Your task to perform on an android device: turn off javascript in the chrome app Image 0: 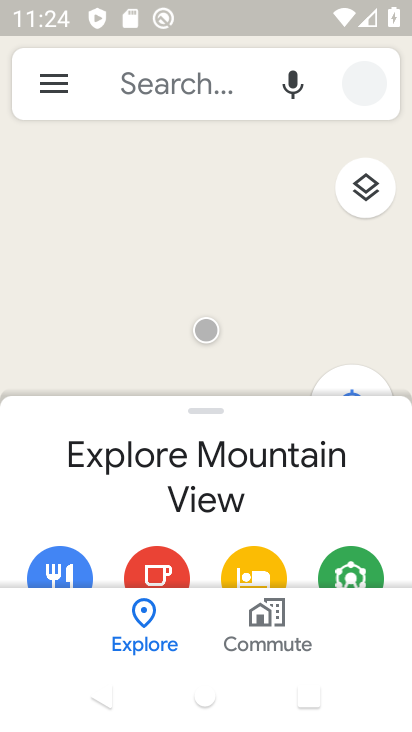
Step 0: press home button
Your task to perform on an android device: turn off javascript in the chrome app Image 1: 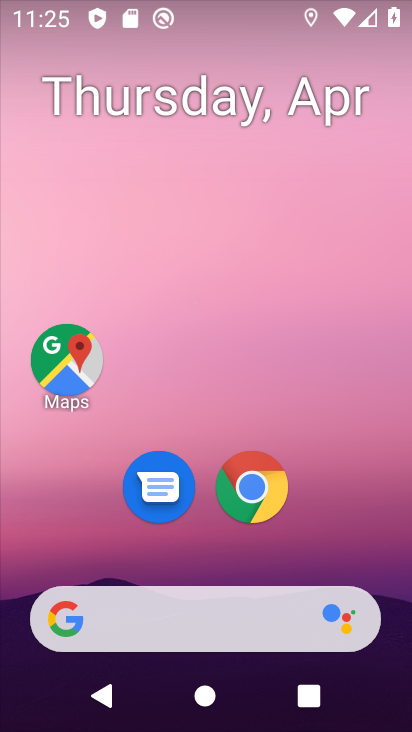
Step 1: drag from (326, 563) to (315, 179)
Your task to perform on an android device: turn off javascript in the chrome app Image 2: 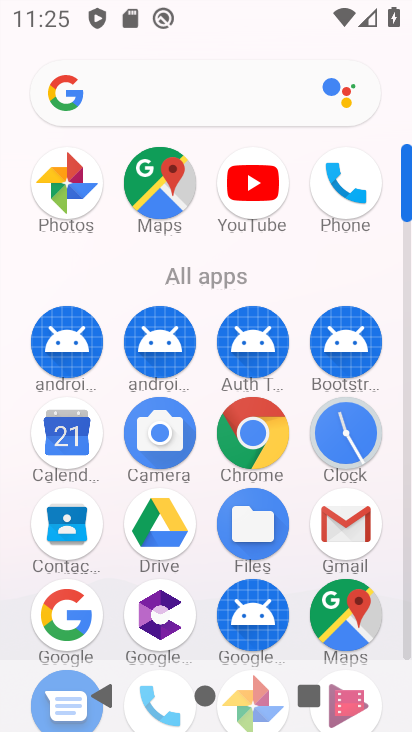
Step 2: drag from (201, 583) to (240, 234)
Your task to perform on an android device: turn off javascript in the chrome app Image 3: 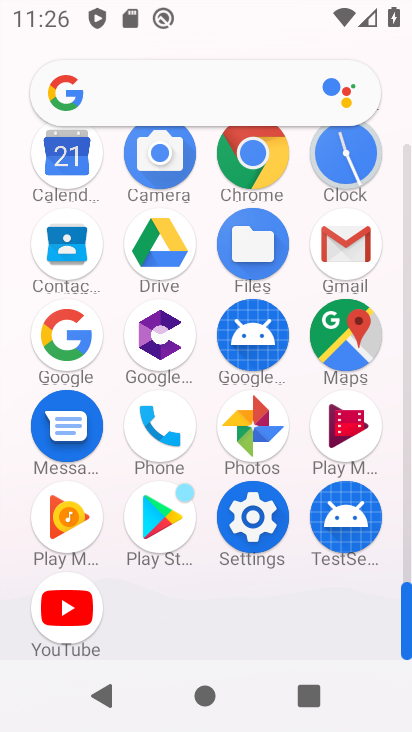
Step 3: click (257, 153)
Your task to perform on an android device: turn off javascript in the chrome app Image 4: 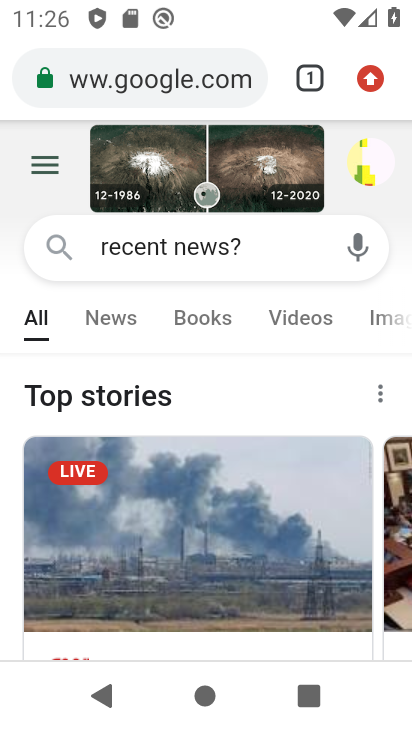
Step 4: click (376, 87)
Your task to perform on an android device: turn off javascript in the chrome app Image 5: 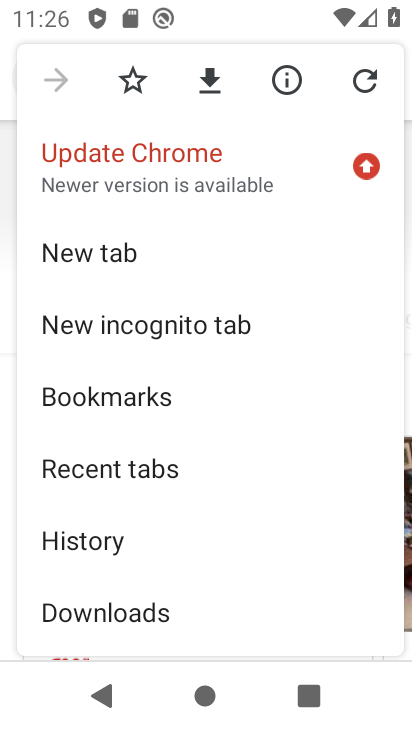
Step 5: drag from (209, 570) to (262, 161)
Your task to perform on an android device: turn off javascript in the chrome app Image 6: 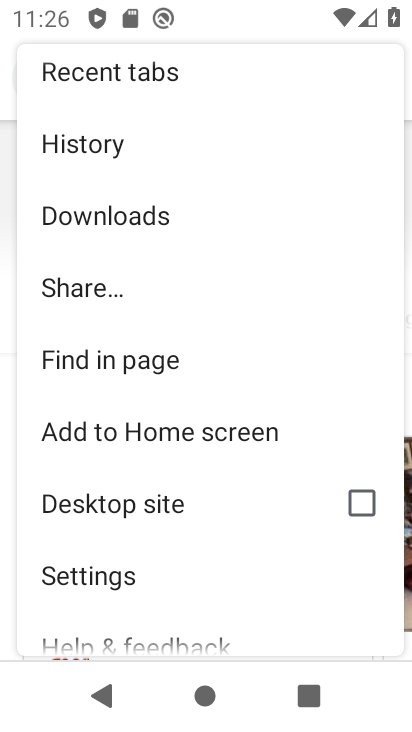
Step 6: click (145, 578)
Your task to perform on an android device: turn off javascript in the chrome app Image 7: 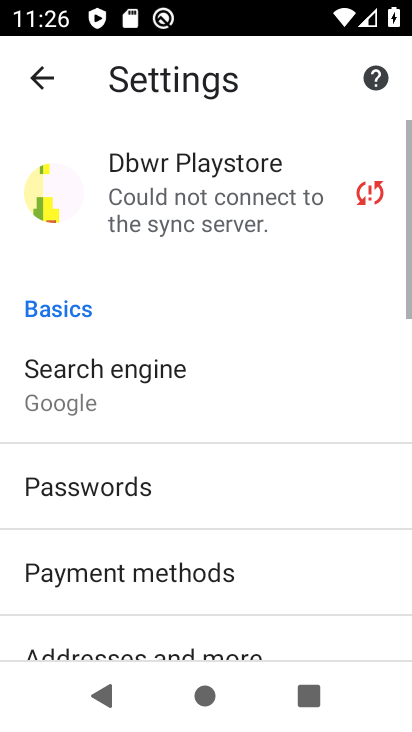
Step 7: drag from (235, 619) to (351, 182)
Your task to perform on an android device: turn off javascript in the chrome app Image 8: 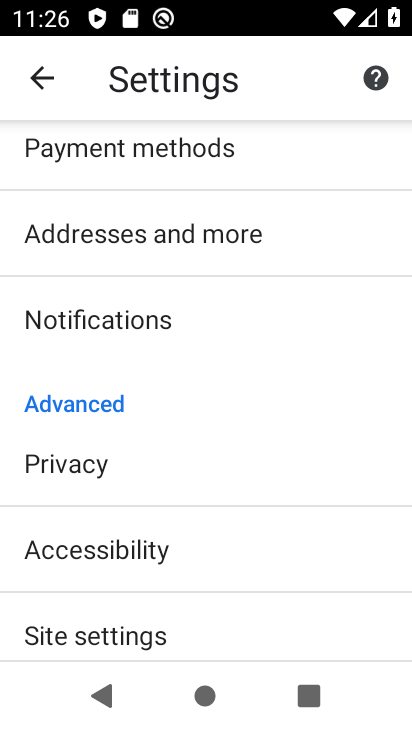
Step 8: drag from (225, 546) to (293, 297)
Your task to perform on an android device: turn off javascript in the chrome app Image 9: 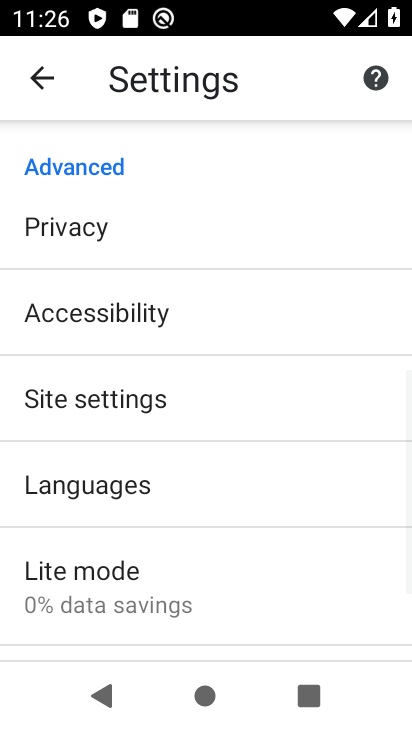
Step 9: click (151, 401)
Your task to perform on an android device: turn off javascript in the chrome app Image 10: 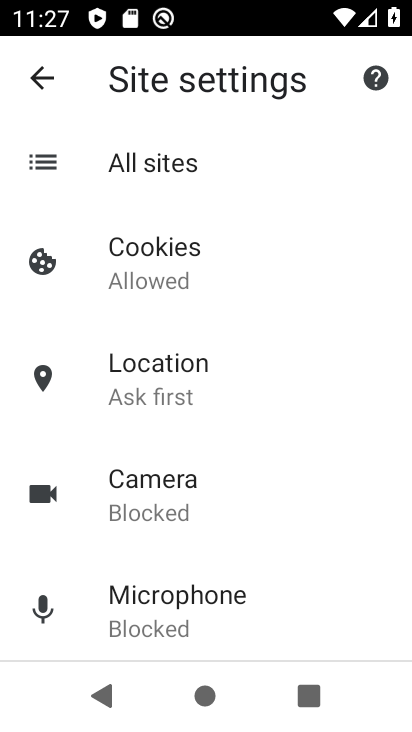
Step 10: drag from (198, 591) to (307, 186)
Your task to perform on an android device: turn off javascript in the chrome app Image 11: 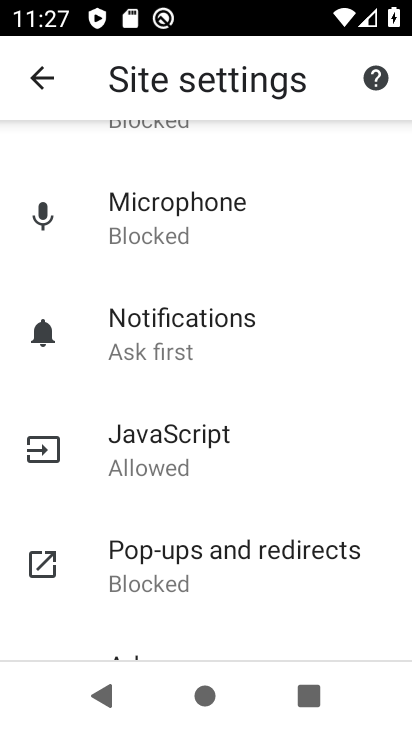
Step 11: click (168, 431)
Your task to perform on an android device: turn off javascript in the chrome app Image 12: 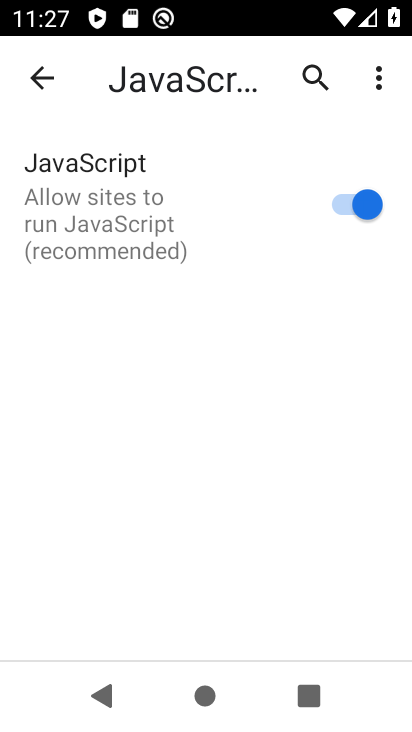
Step 12: click (331, 199)
Your task to perform on an android device: turn off javascript in the chrome app Image 13: 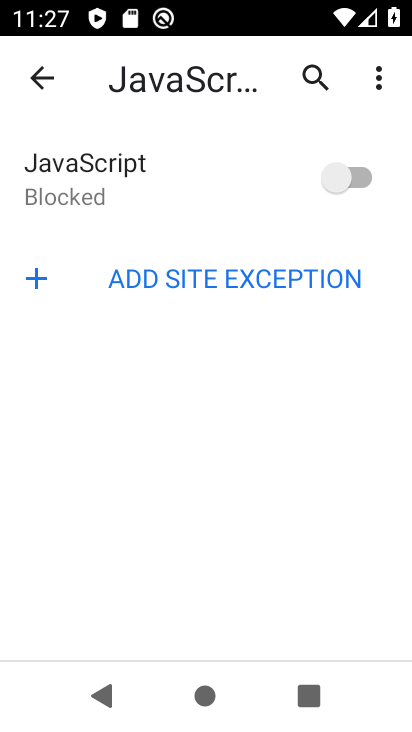
Step 13: task complete